Your task to perform on an android device: open app "Chime – Mobile Banking" Image 0: 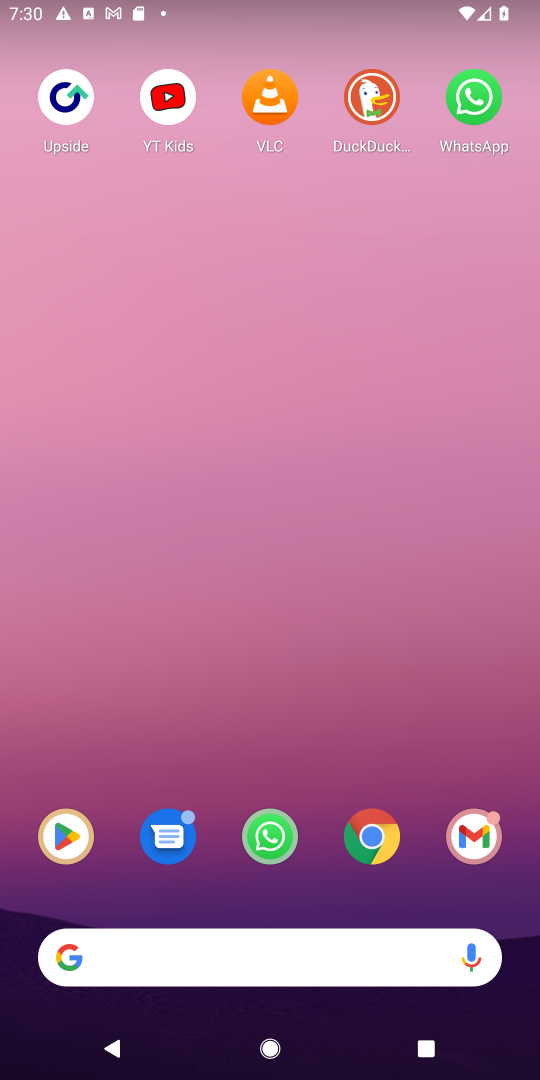
Step 0: press home button
Your task to perform on an android device: open app "Chime – Mobile Banking" Image 1: 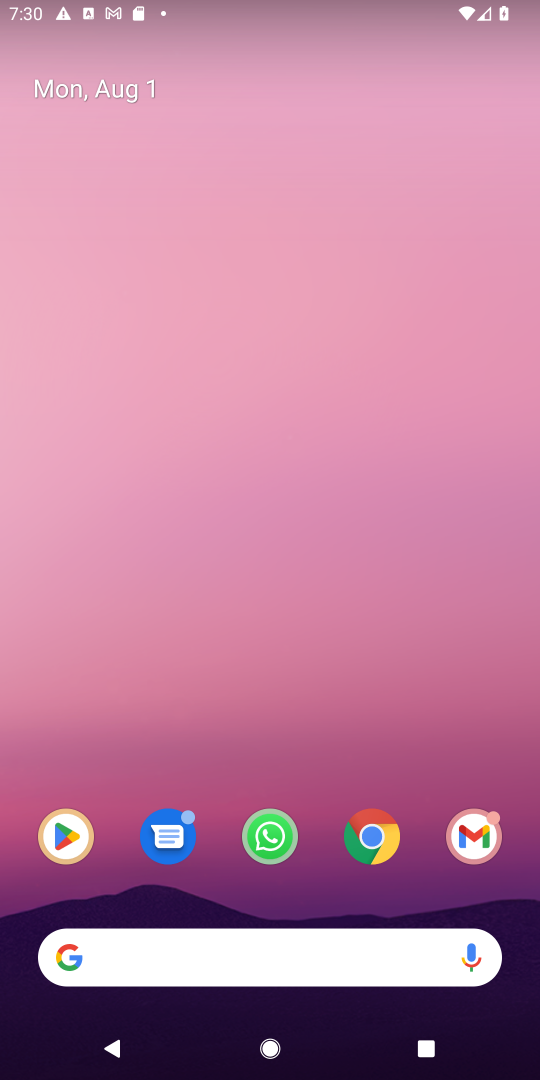
Step 1: click (57, 835)
Your task to perform on an android device: open app "Chime – Mobile Banking" Image 2: 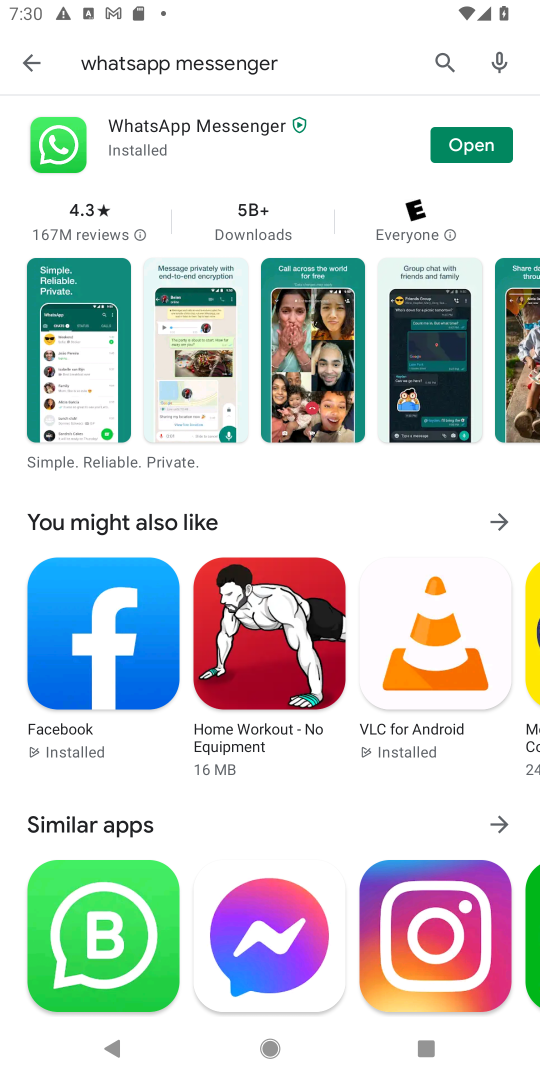
Step 2: click (441, 50)
Your task to perform on an android device: open app "Chime – Mobile Banking" Image 3: 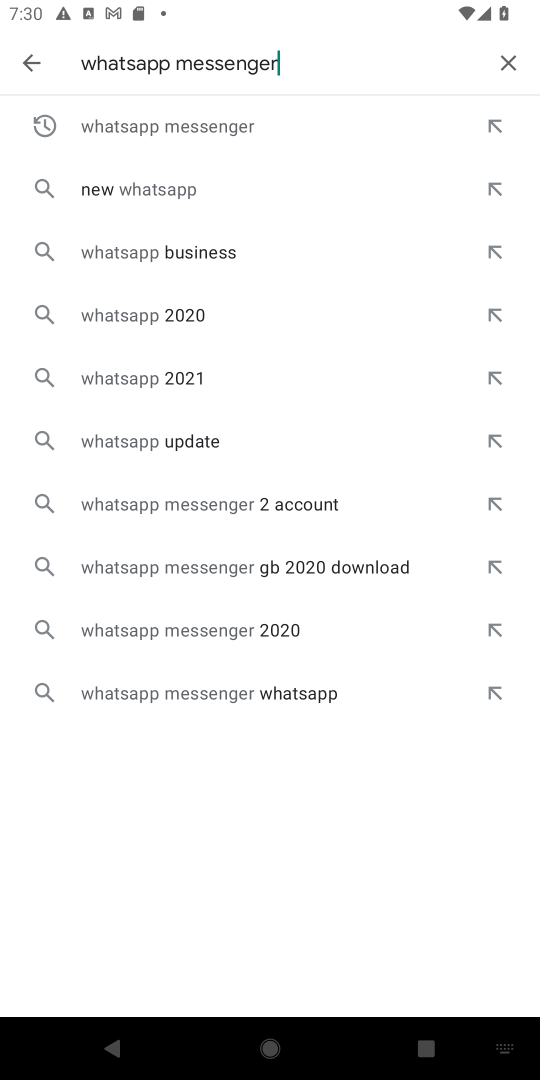
Step 3: click (510, 65)
Your task to perform on an android device: open app "Chime – Mobile Banking" Image 4: 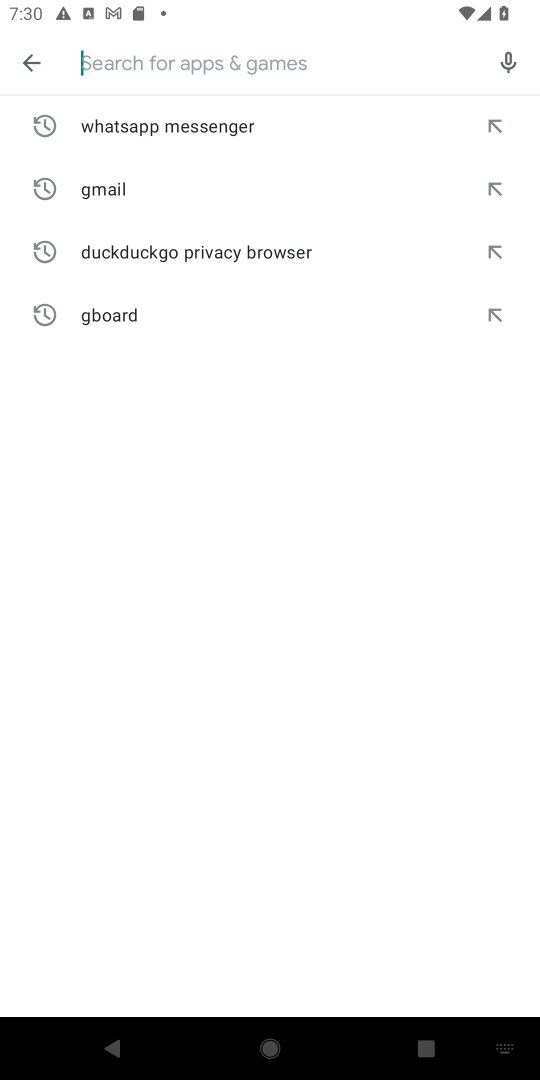
Step 4: type "Chime  Mobile Banking"
Your task to perform on an android device: open app "Chime – Mobile Banking" Image 5: 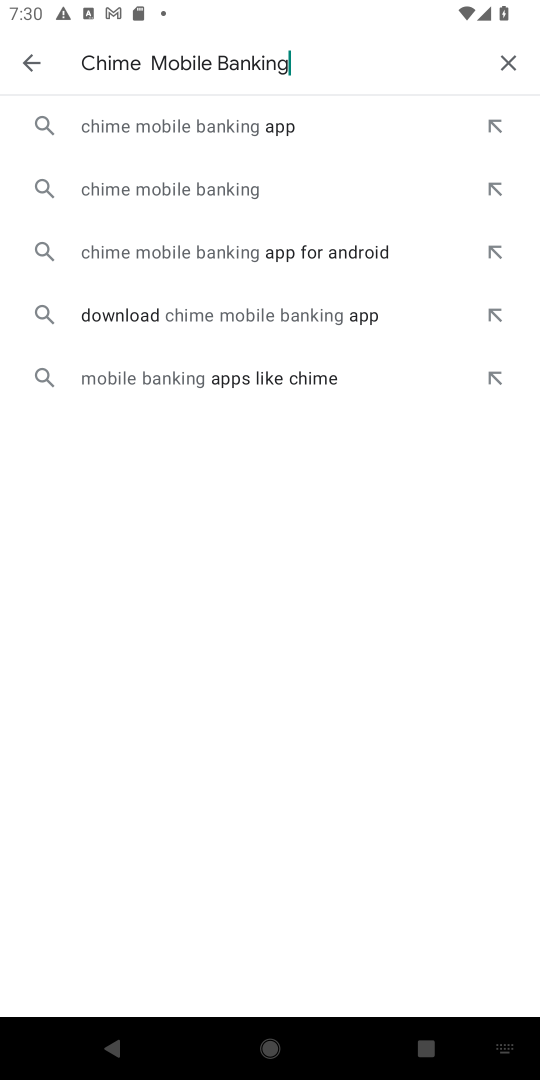
Step 5: click (228, 126)
Your task to perform on an android device: open app "Chime – Mobile Banking" Image 6: 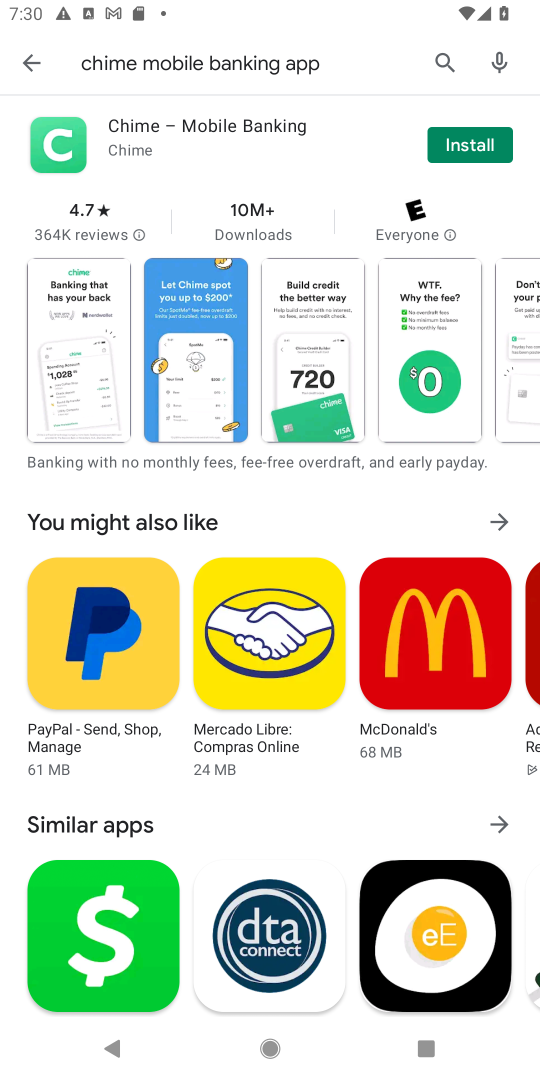
Step 6: task complete